Your task to perform on an android device: change notifications settings Image 0: 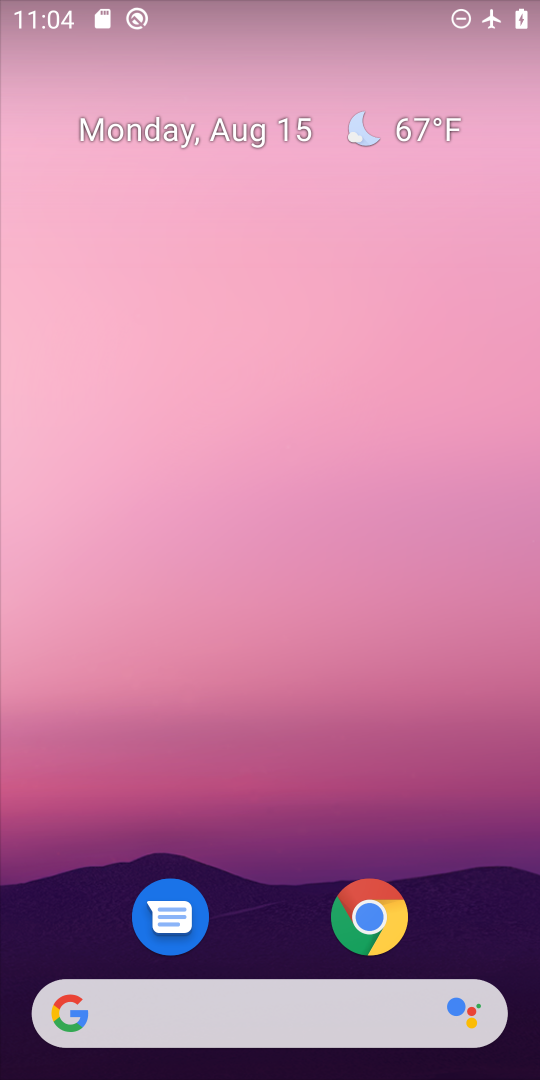
Step 0: drag from (292, 774) to (308, 1)
Your task to perform on an android device: change notifications settings Image 1: 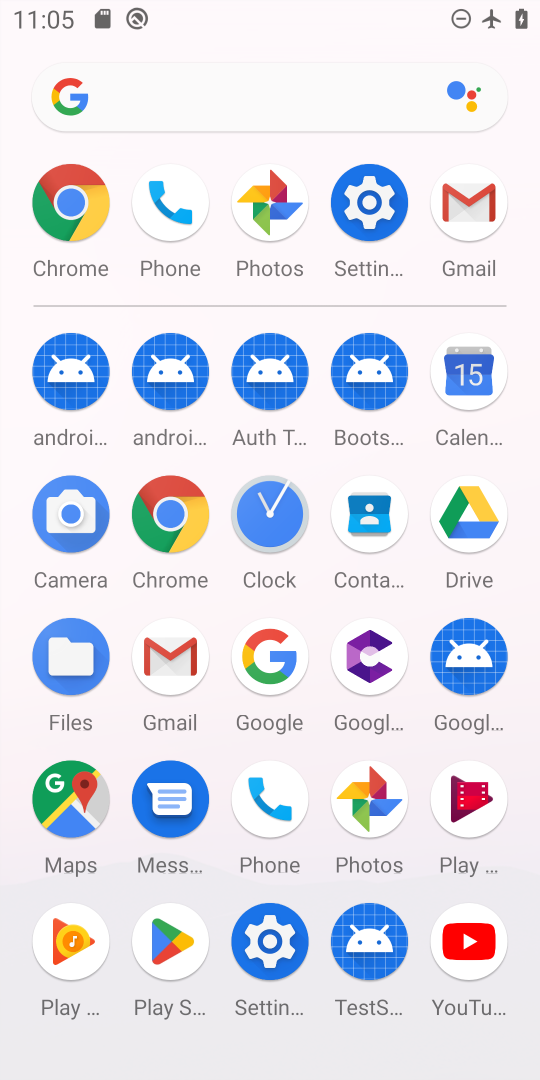
Step 1: click (373, 192)
Your task to perform on an android device: change notifications settings Image 2: 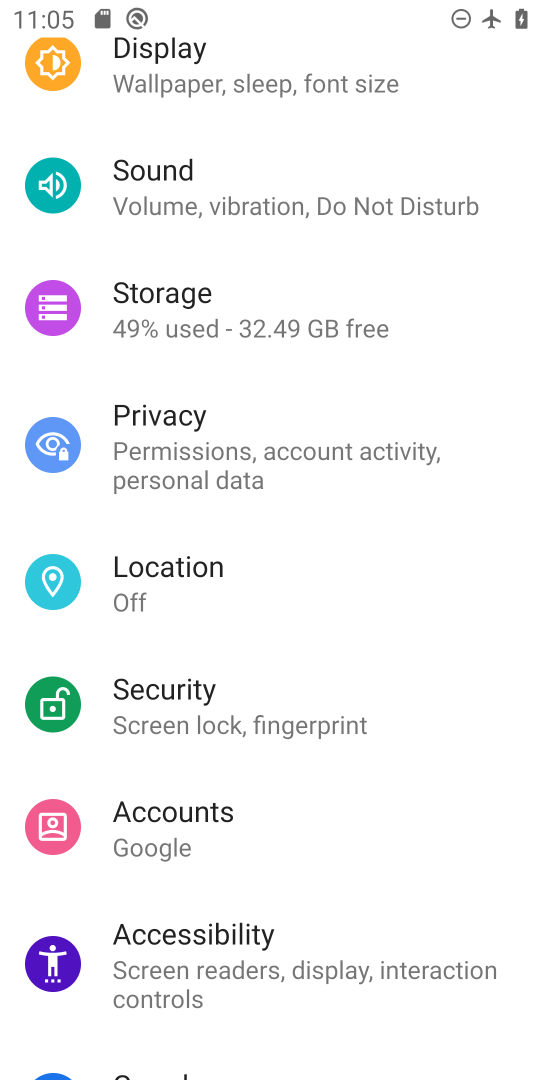
Step 2: drag from (354, 265) to (414, 977)
Your task to perform on an android device: change notifications settings Image 3: 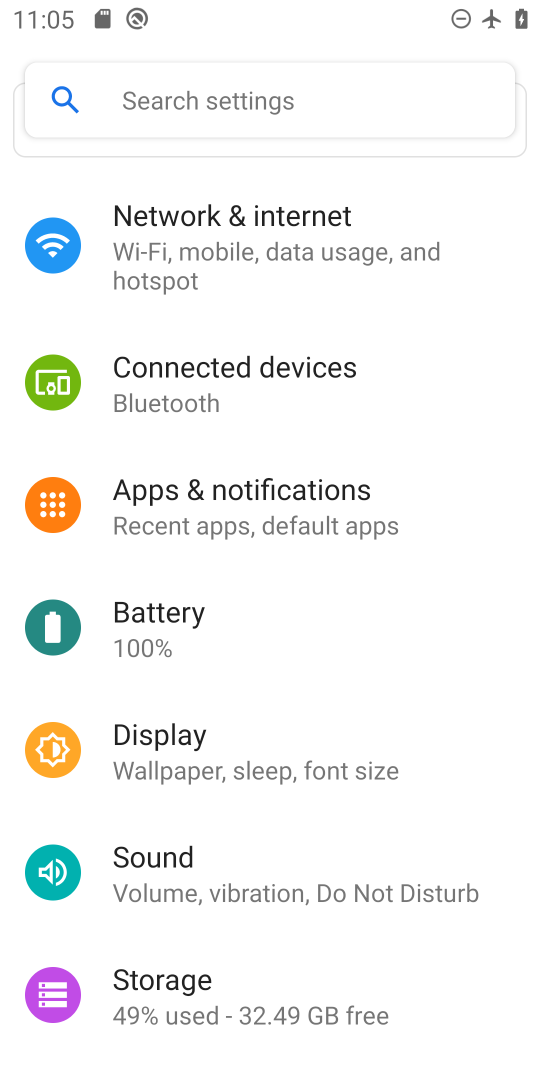
Step 3: click (287, 477)
Your task to perform on an android device: change notifications settings Image 4: 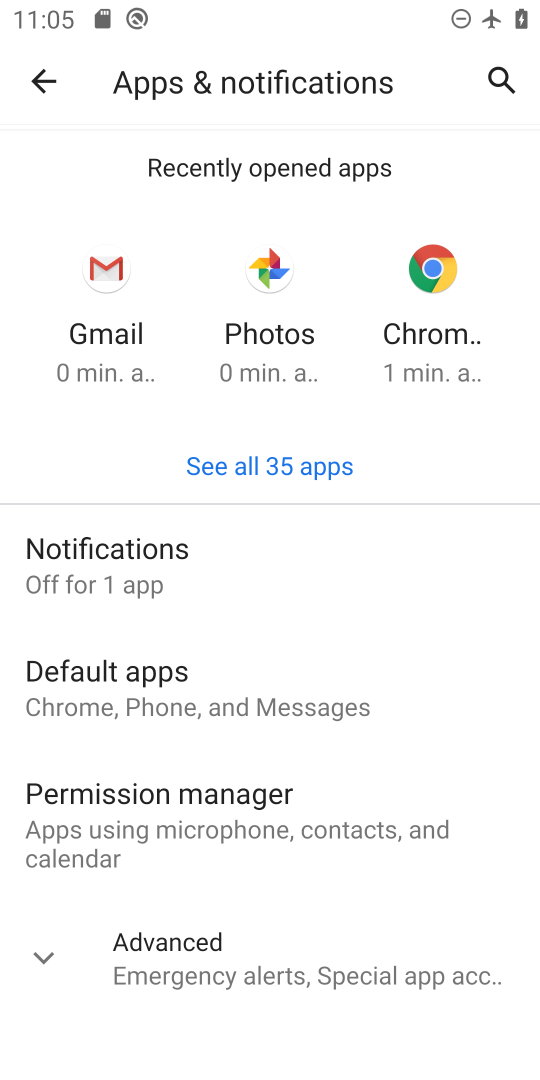
Step 4: click (154, 553)
Your task to perform on an android device: change notifications settings Image 5: 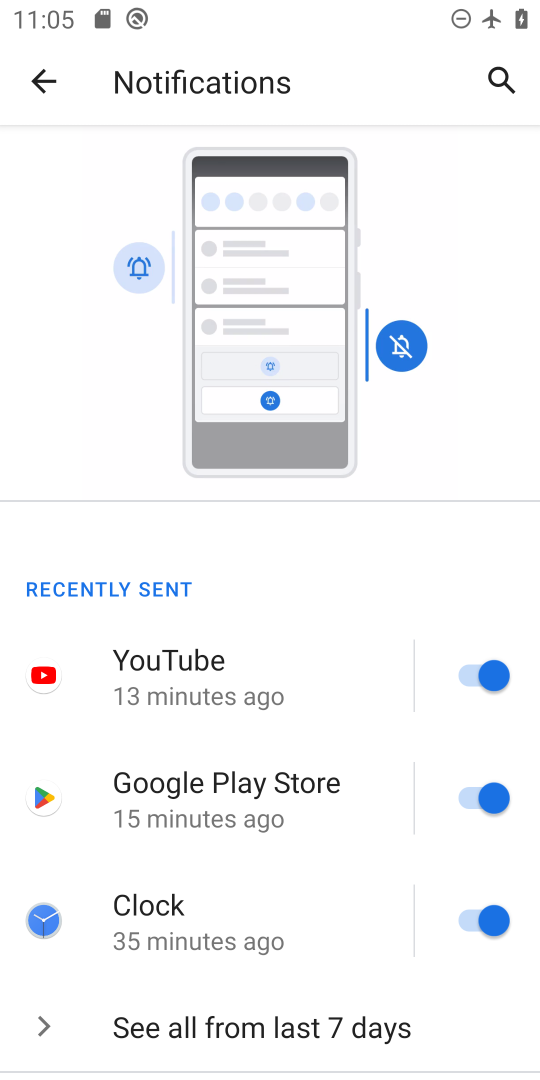
Step 5: drag from (310, 825) to (323, 201)
Your task to perform on an android device: change notifications settings Image 6: 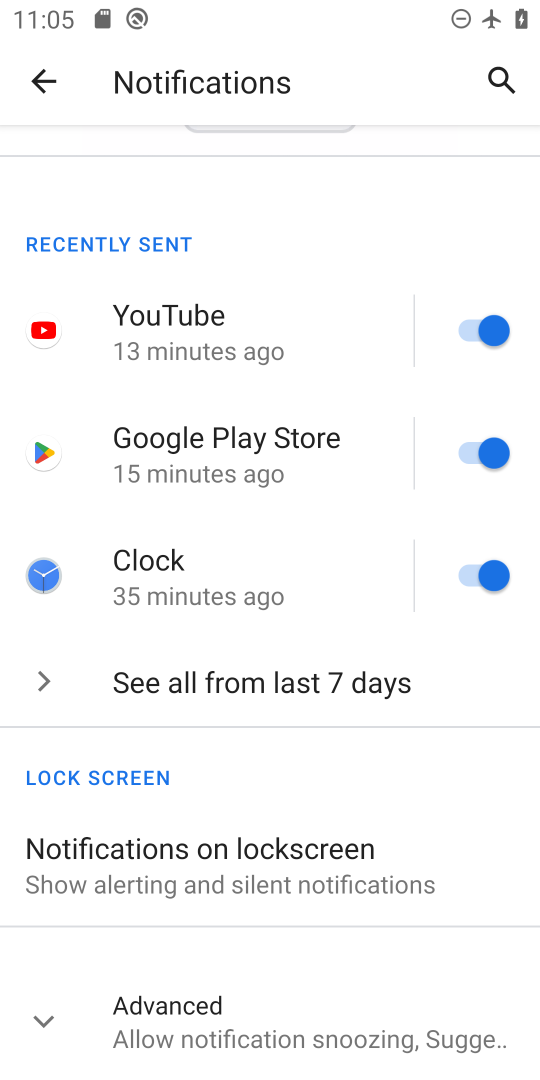
Step 6: click (319, 679)
Your task to perform on an android device: change notifications settings Image 7: 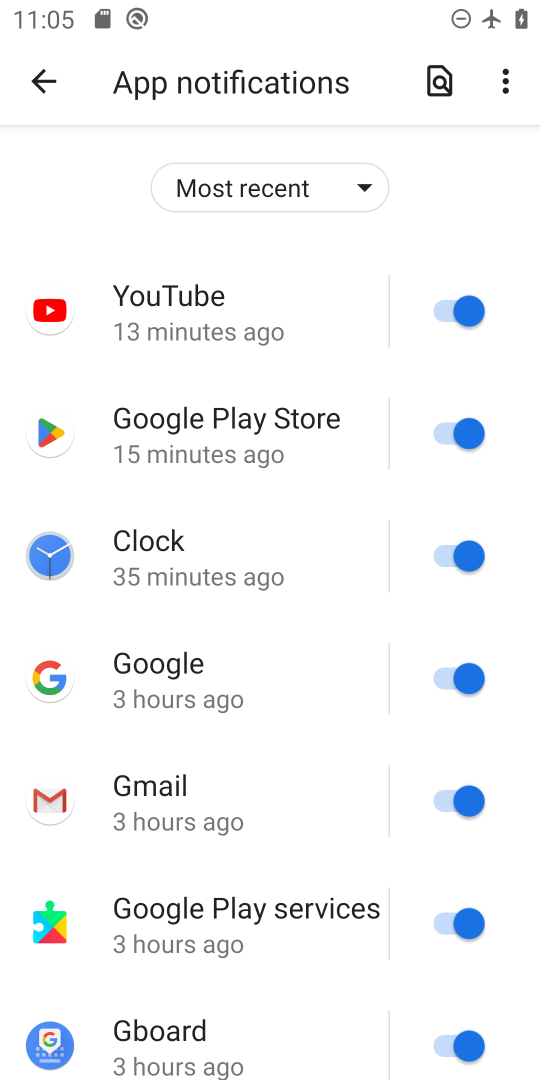
Step 7: click (463, 300)
Your task to perform on an android device: change notifications settings Image 8: 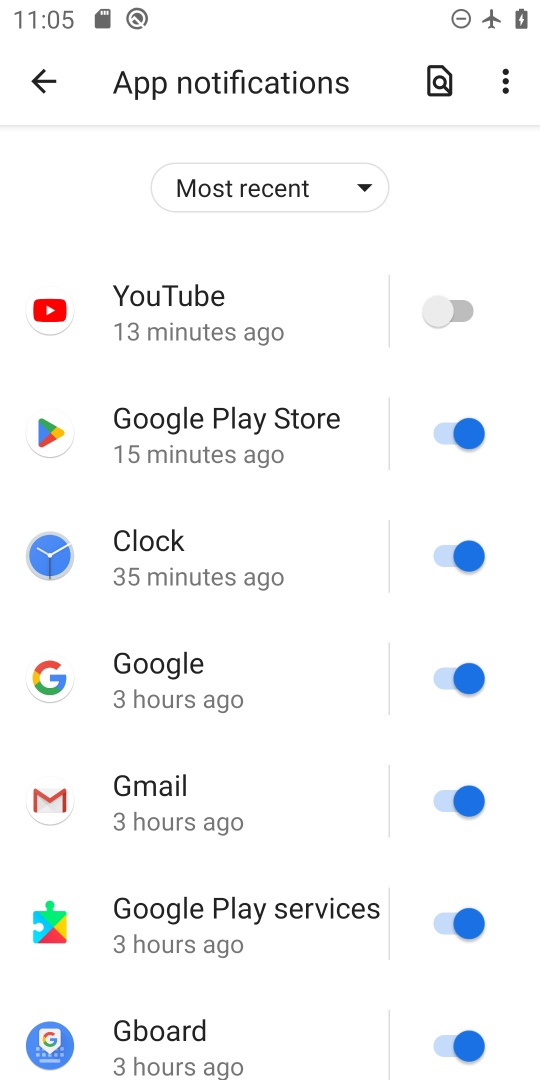
Step 8: click (451, 422)
Your task to perform on an android device: change notifications settings Image 9: 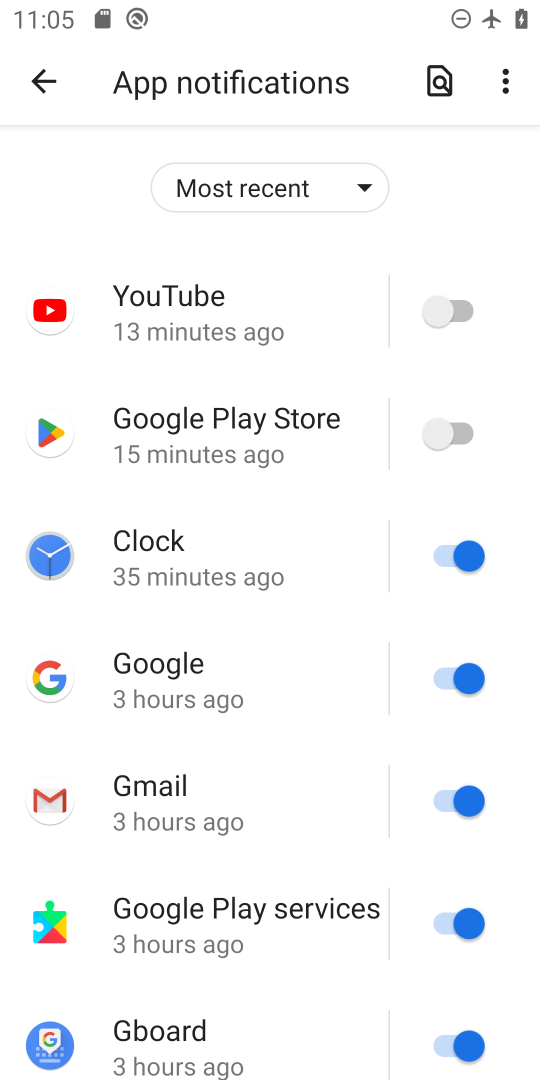
Step 9: click (468, 530)
Your task to perform on an android device: change notifications settings Image 10: 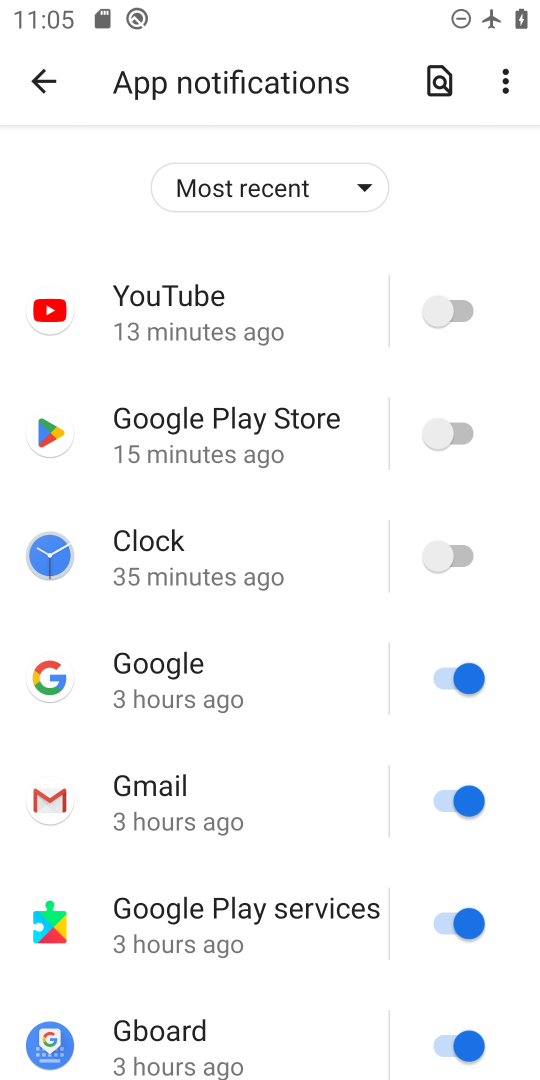
Step 10: click (447, 676)
Your task to perform on an android device: change notifications settings Image 11: 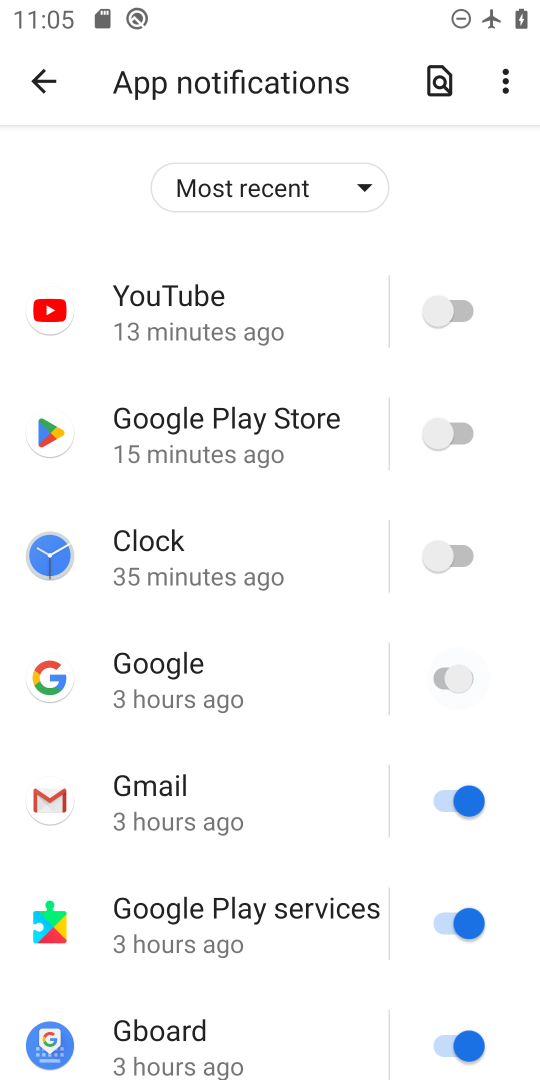
Step 11: click (458, 798)
Your task to perform on an android device: change notifications settings Image 12: 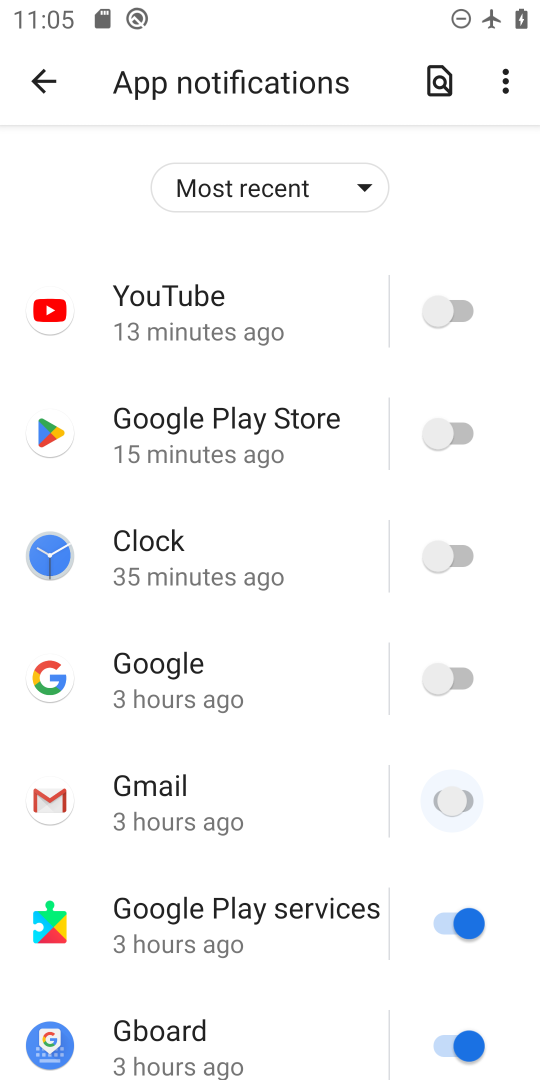
Step 12: click (464, 912)
Your task to perform on an android device: change notifications settings Image 13: 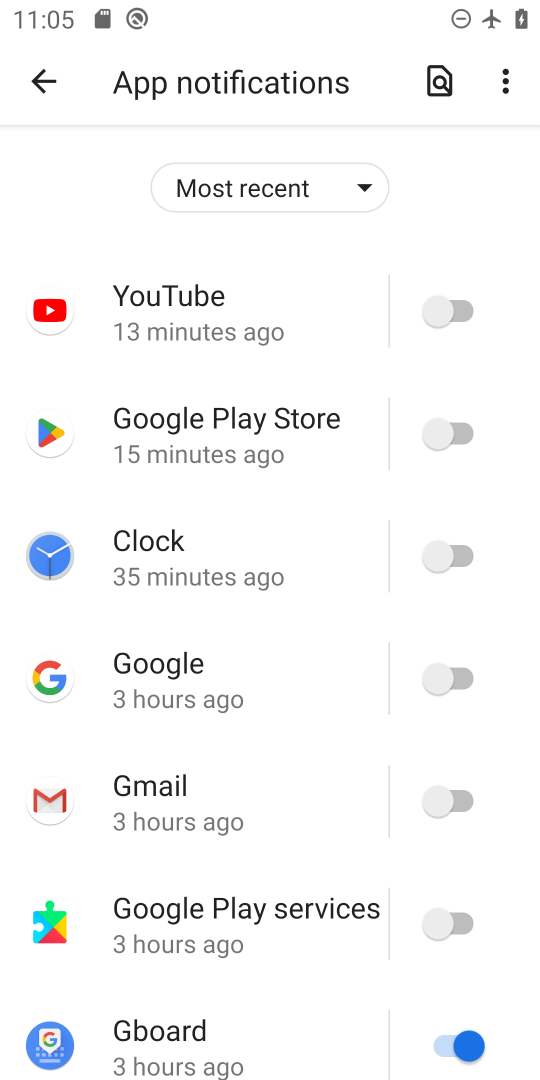
Step 13: click (478, 1039)
Your task to perform on an android device: change notifications settings Image 14: 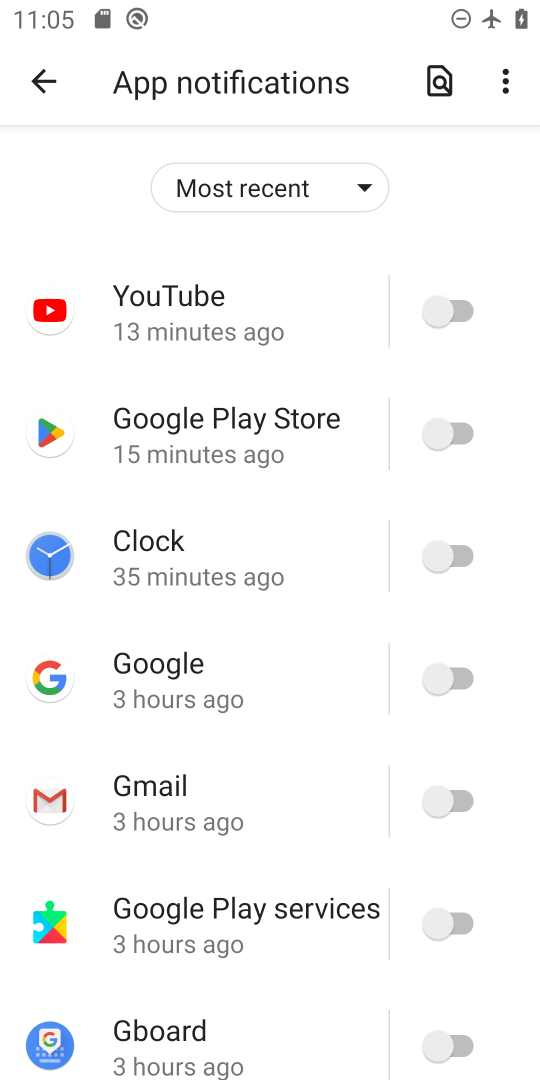
Step 14: drag from (306, 809) to (236, 0)
Your task to perform on an android device: change notifications settings Image 15: 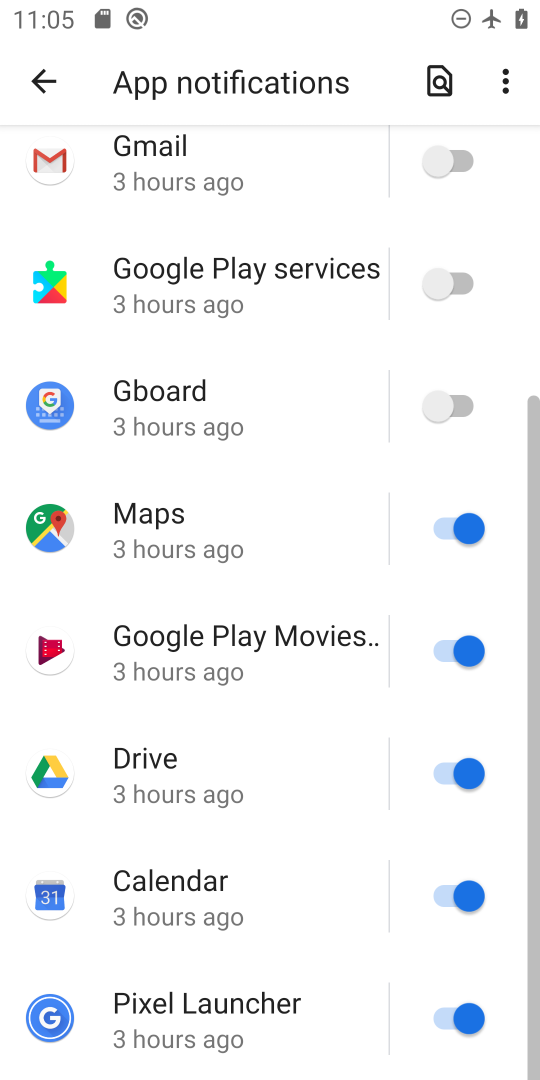
Step 15: click (467, 526)
Your task to perform on an android device: change notifications settings Image 16: 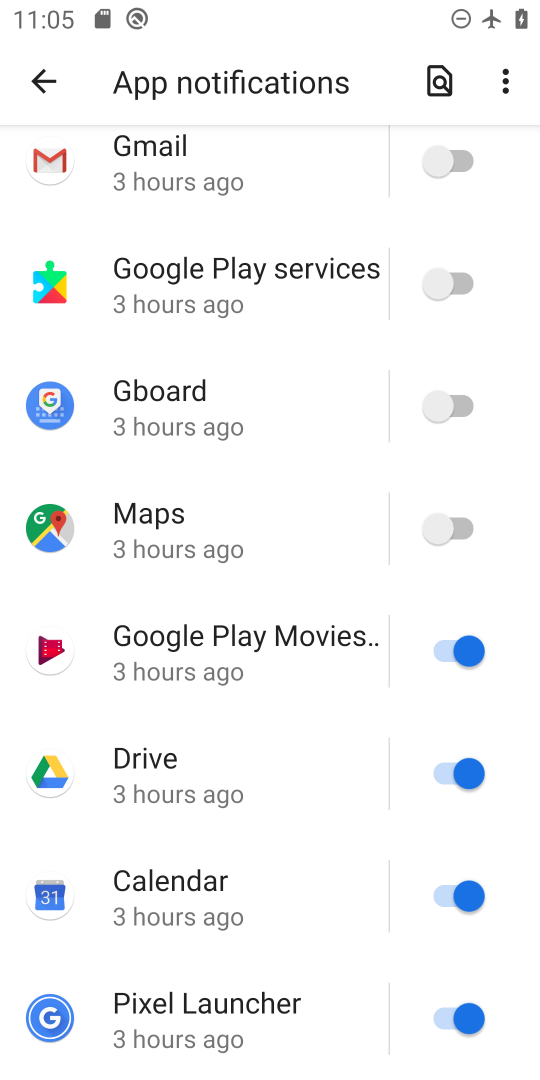
Step 16: click (471, 644)
Your task to perform on an android device: change notifications settings Image 17: 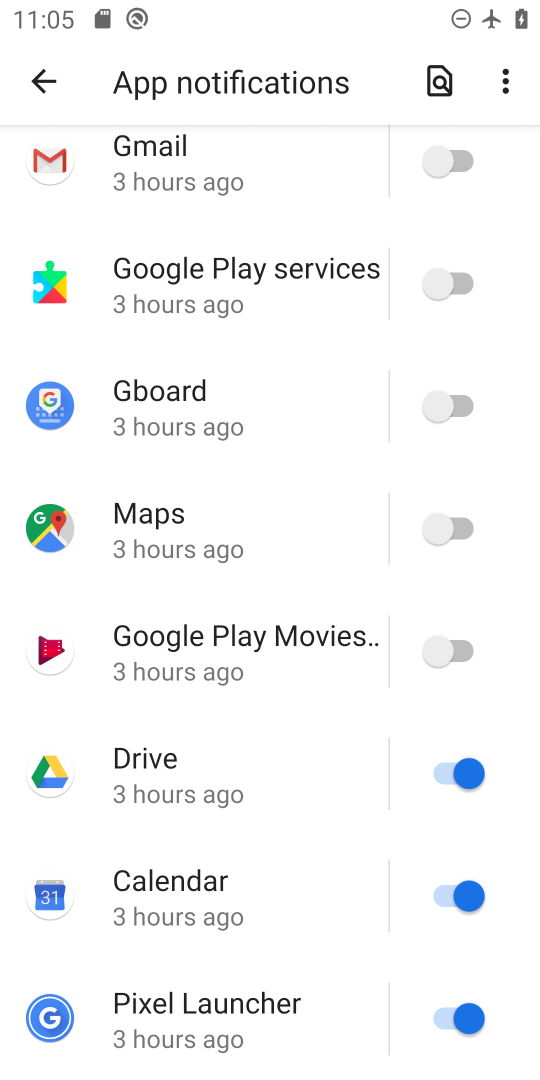
Step 17: click (473, 770)
Your task to perform on an android device: change notifications settings Image 18: 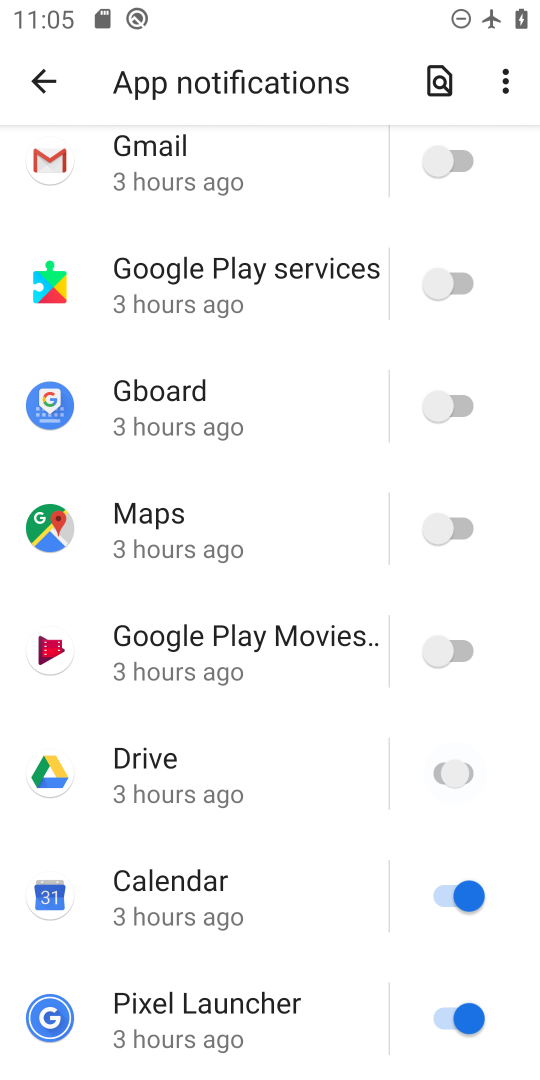
Step 18: click (470, 889)
Your task to perform on an android device: change notifications settings Image 19: 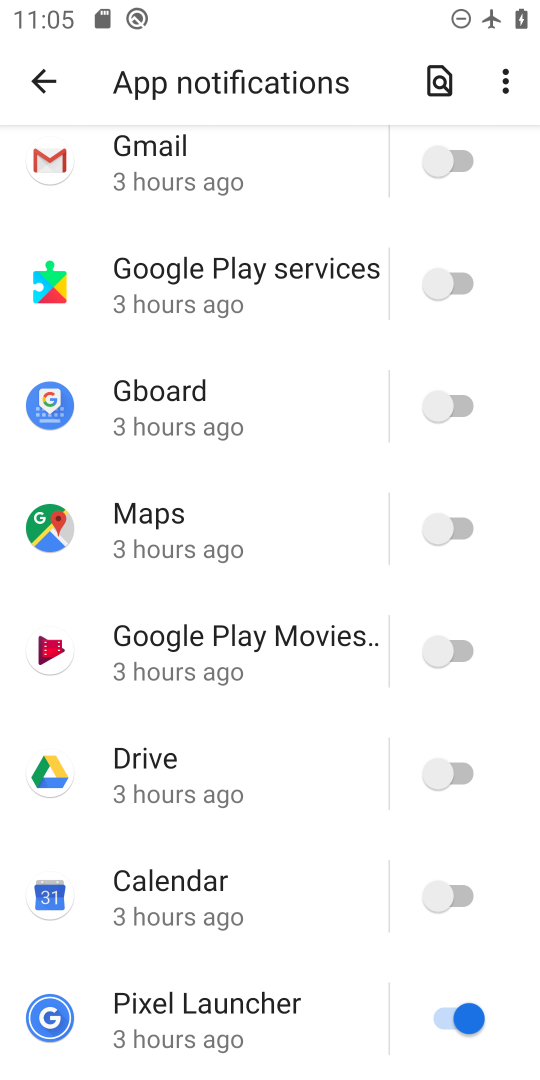
Step 19: click (468, 1013)
Your task to perform on an android device: change notifications settings Image 20: 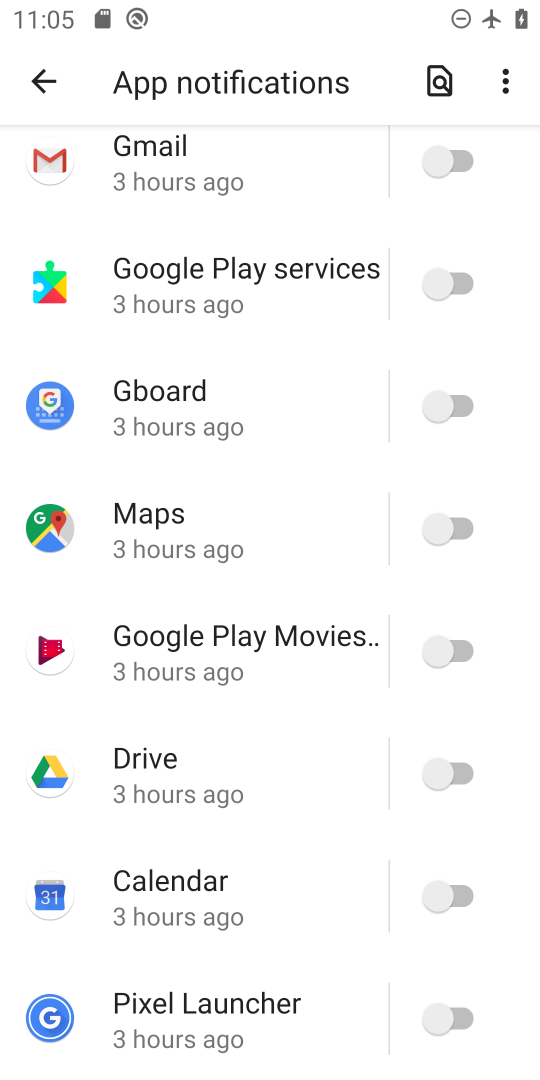
Step 20: task complete